Your task to perform on an android device: Search for Mexican restaurants on Maps Image 0: 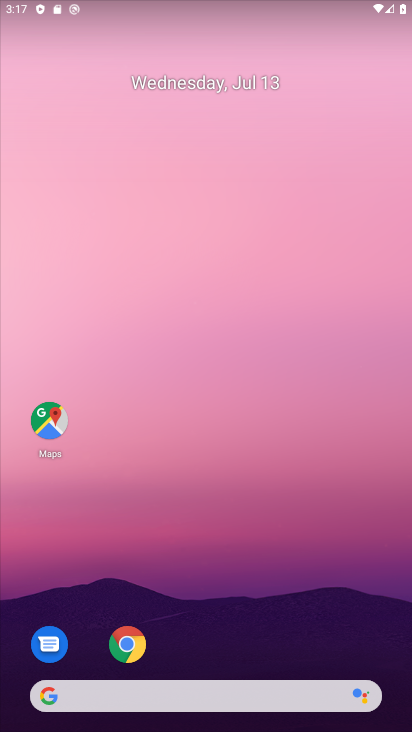
Step 0: drag from (248, 662) to (298, 161)
Your task to perform on an android device: Search for Mexican restaurants on Maps Image 1: 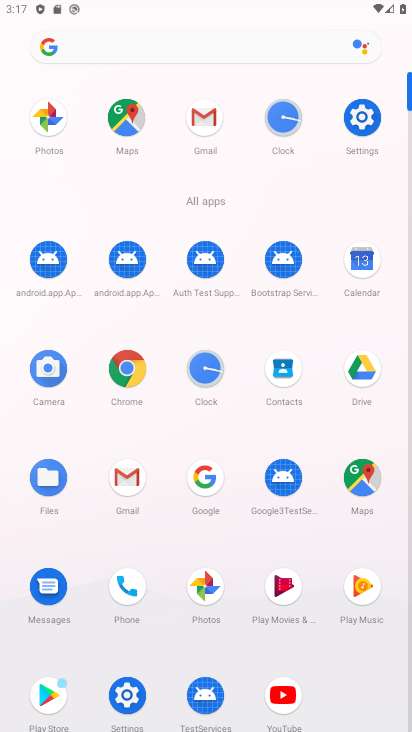
Step 1: click (363, 485)
Your task to perform on an android device: Search for Mexican restaurants on Maps Image 2: 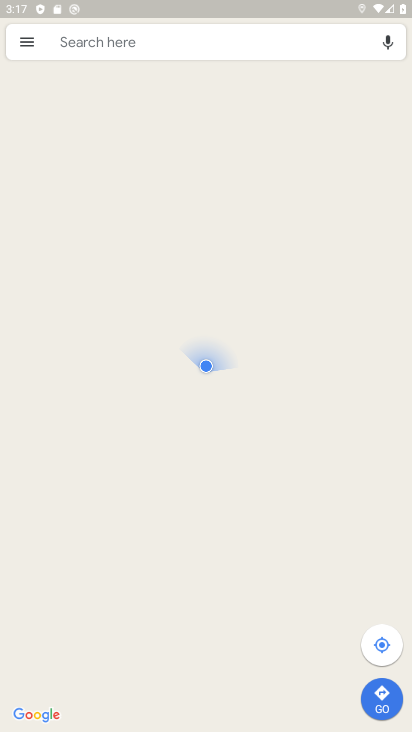
Step 2: click (131, 52)
Your task to perform on an android device: Search for Mexican restaurants on Maps Image 3: 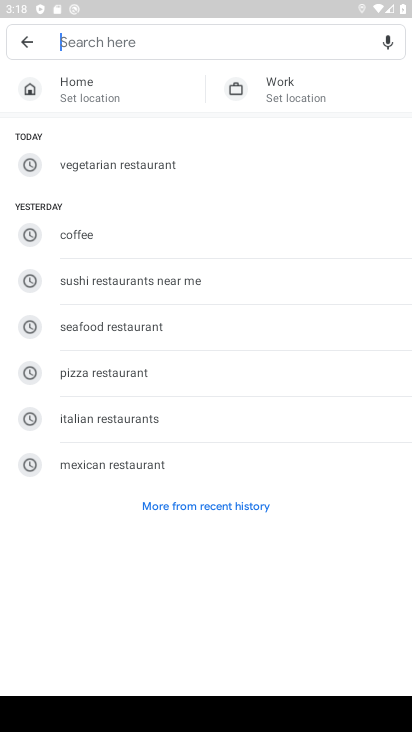
Step 3: type "Mexican restaurants"
Your task to perform on an android device: Search for Mexican restaurants on Maps Image 4: 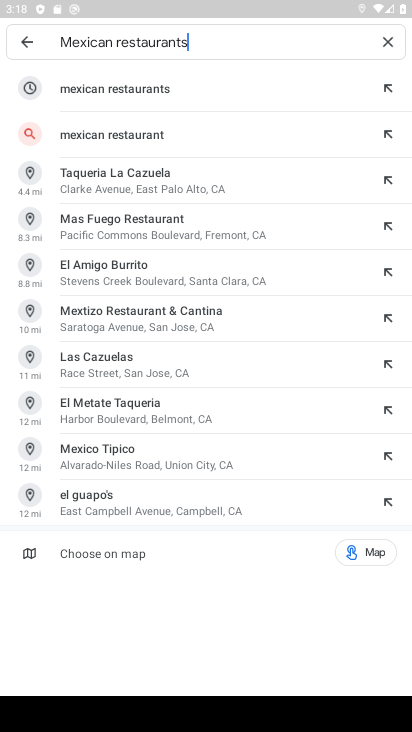
Step 4: click (237, 97)
Your task to perform on an android device: Search for Mexican restaurants on Maps Image 5: 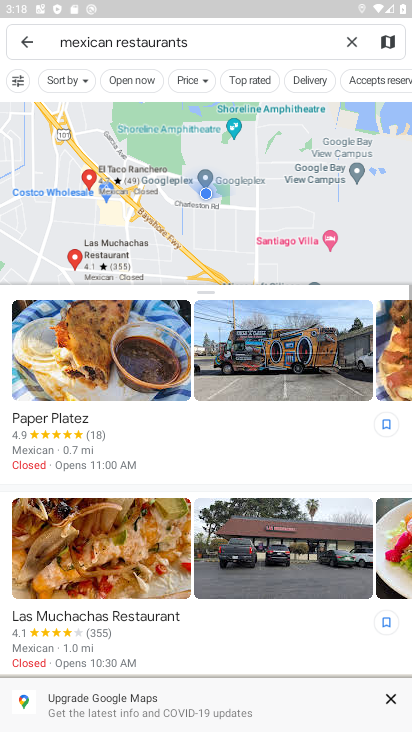
Step 5: task complete